Your task to perform on an android device: turn off translation in the chrome app Image 0: 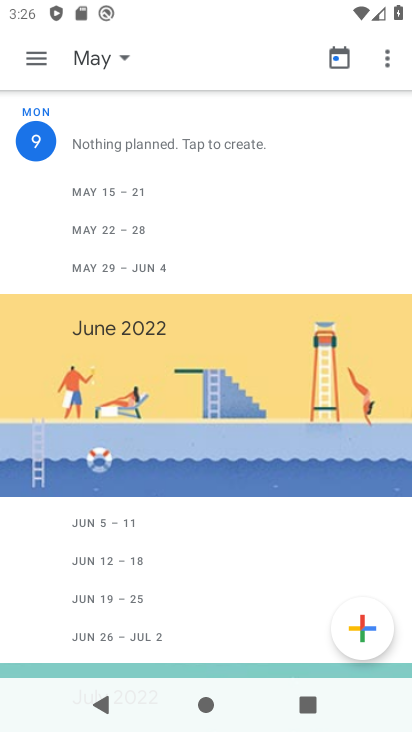
Step 0: press home button
Your task to perform on an android device: turn off translation in the chrome app Image 1: 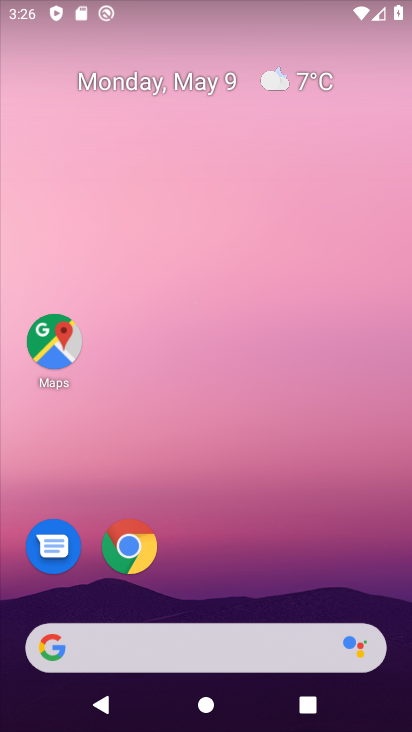
Step 1: click (124, 550)
Your task to perform on an android device: turn off translation in the chrome app Image 2: 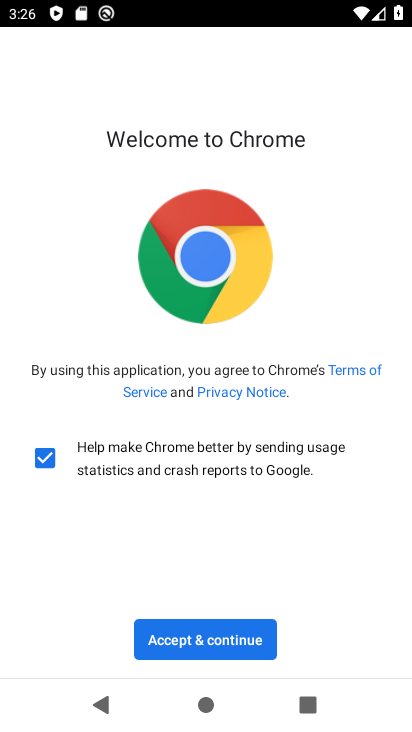
Step 2: click (239, 651)
Your task to perform on an android device: turn off translation in the chrome app Image 3: 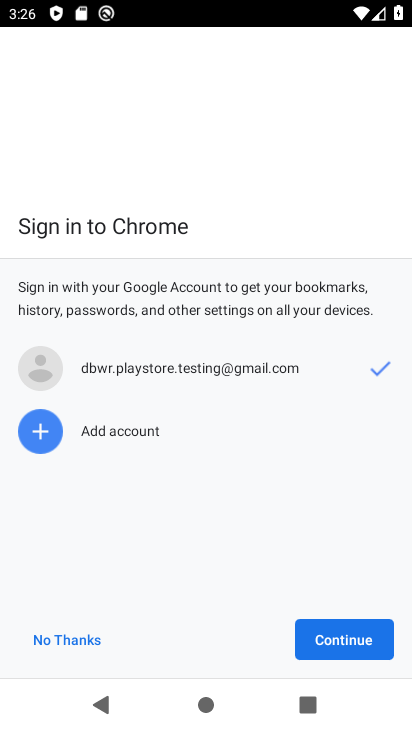
Step 3: click (365, 634)
Your task to perform on an android device: turn off translation in the chrome app Image 4: 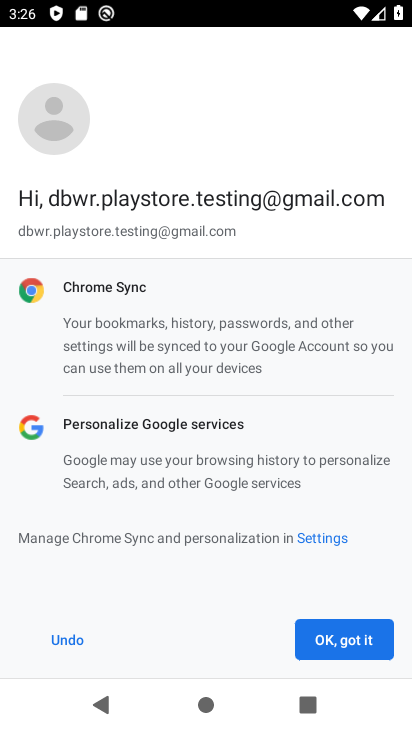
Step 4: click (365, 634)
Your task to perform on an android device: turn off translation in the chrome app Image 5: 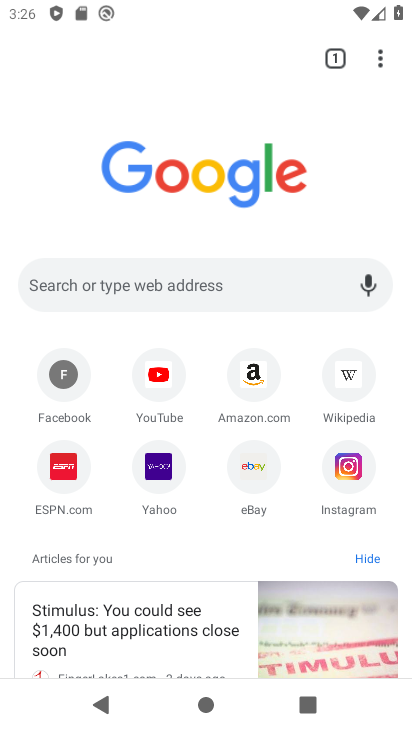
Step 5: drag from (384, 70) to (254, 506)
Your task to perform on an android device: turn off translation in the chrome app Image 6: 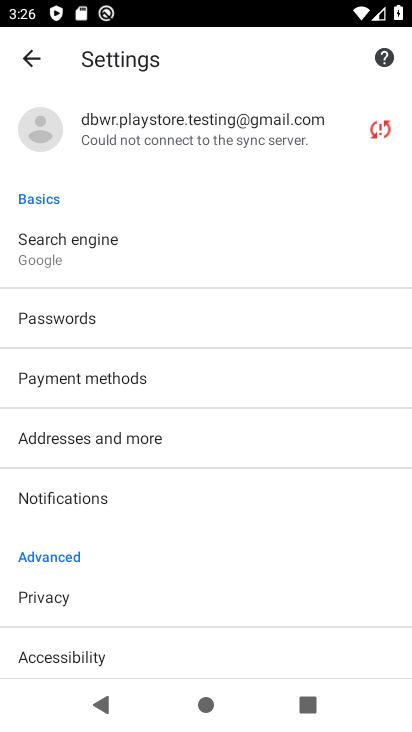
Step 6: drag from (177, 609) to (251, 322)
Your task to perform on an android device: turn off translation in the chrome app Image 7: 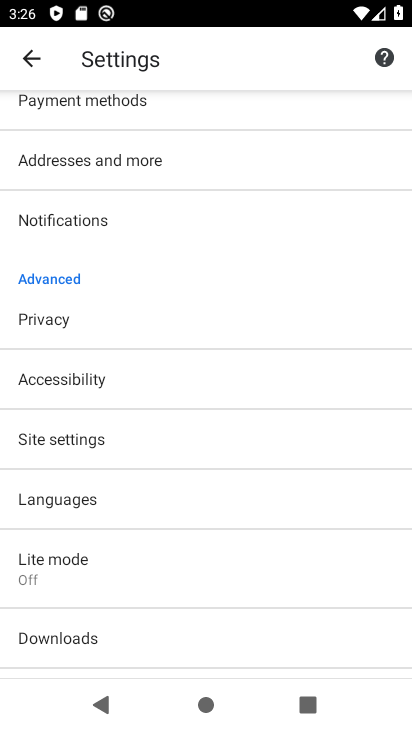
Step 7: click (172, 499)
Your task to perform on an android device: turn off translation in the chrome app Image 8: 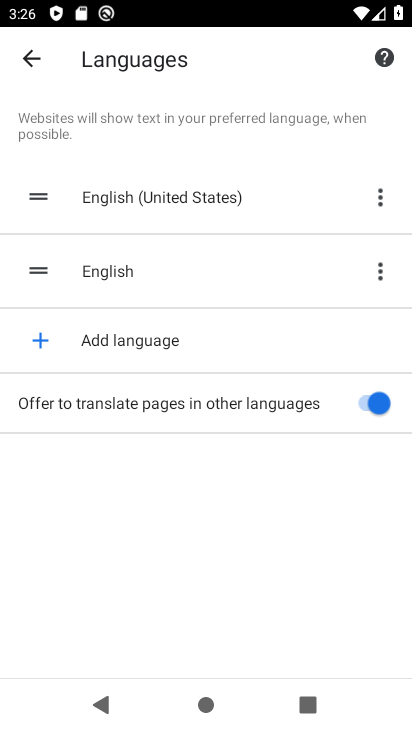
Step 8: click (371, 390)
Your task to perform on an android device: turn off translation in the chrome app Image 9: 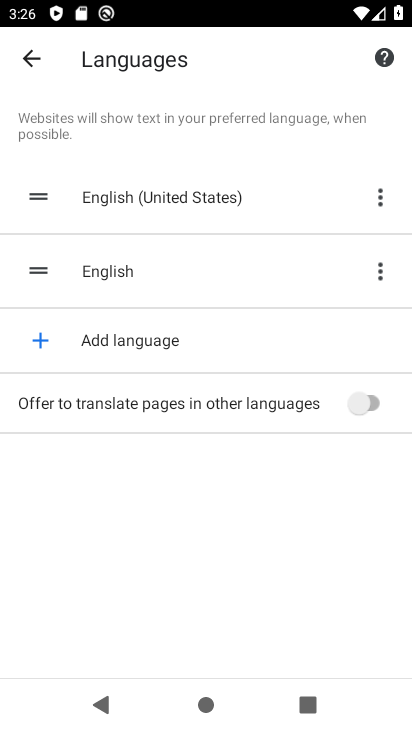
Step 9: task complete